Your task to perform on an android device: search for starred emails in the gmail app Image 0: 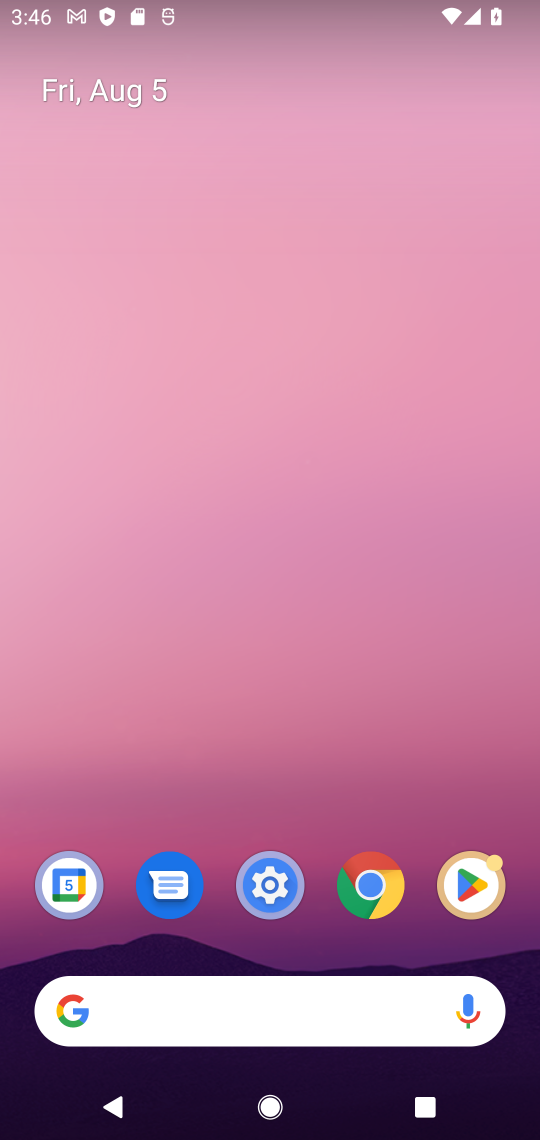
Step 0: drag from (300, 957) to (243, 97)
Your task to perform on an android device: search for starred emails in the gmail app Image 1: 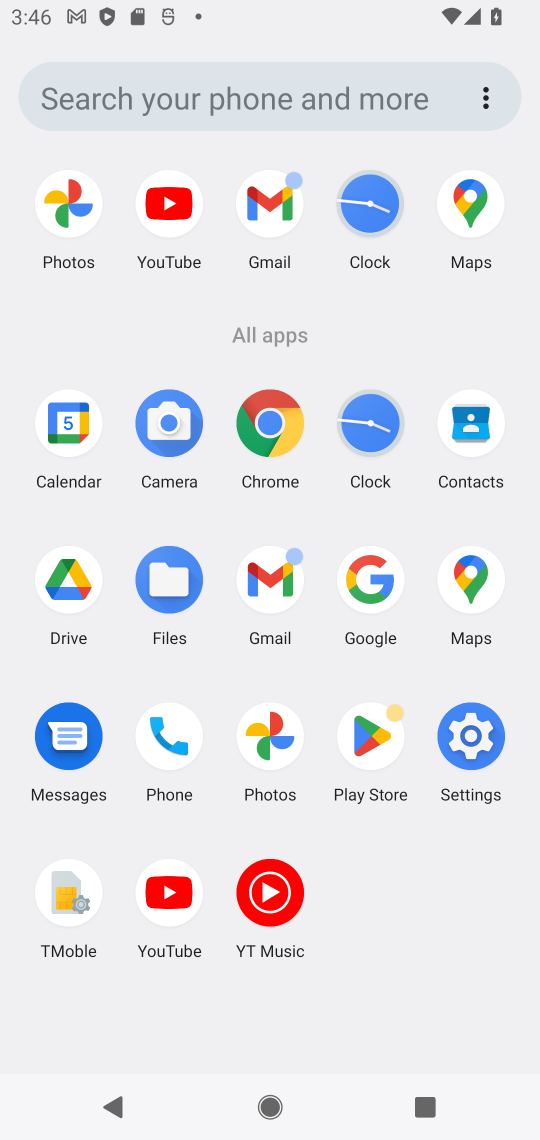
Step 1: click (269, 587)
Your task to perform on an android device: search for starred emails in the gmail app Image 2: 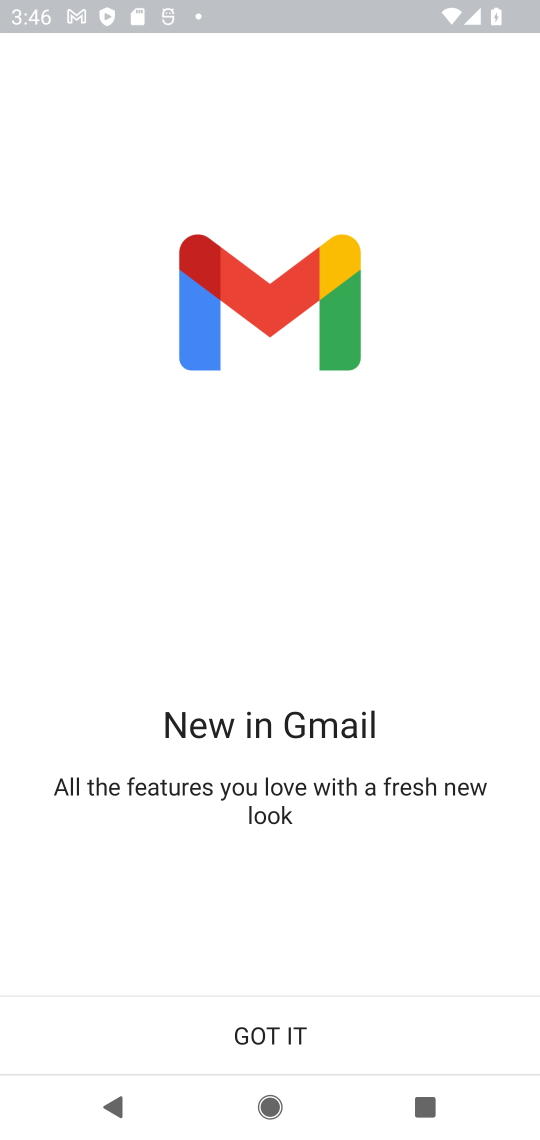
Step 2: click (251, 1031)
Your task to perform on an android device: search for starred emails in the gmail app Image 3: 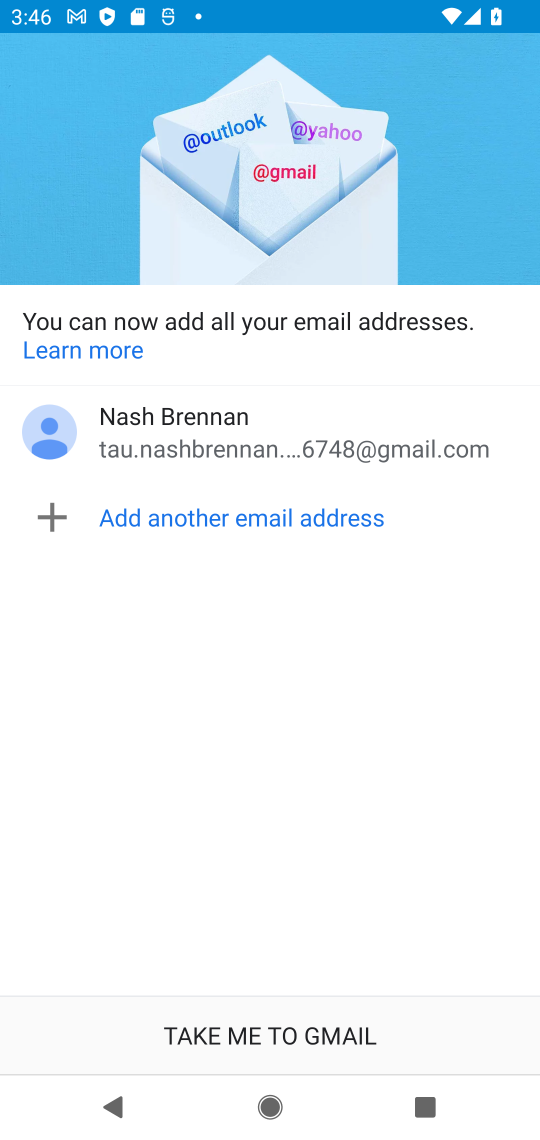
Step 3: click (251, 1031)
Your task to perform on an android device: search for starred emails in the gmail app Image 4: 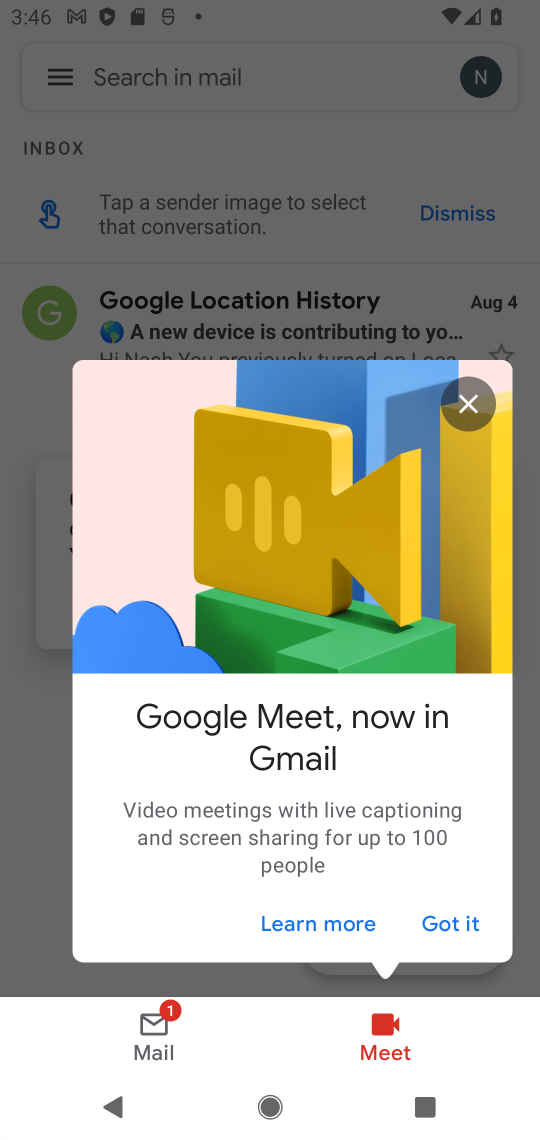
Step 4: click (463, 916)
Your task to perform on an android device: search for starred emails in the gmail app Image 5: 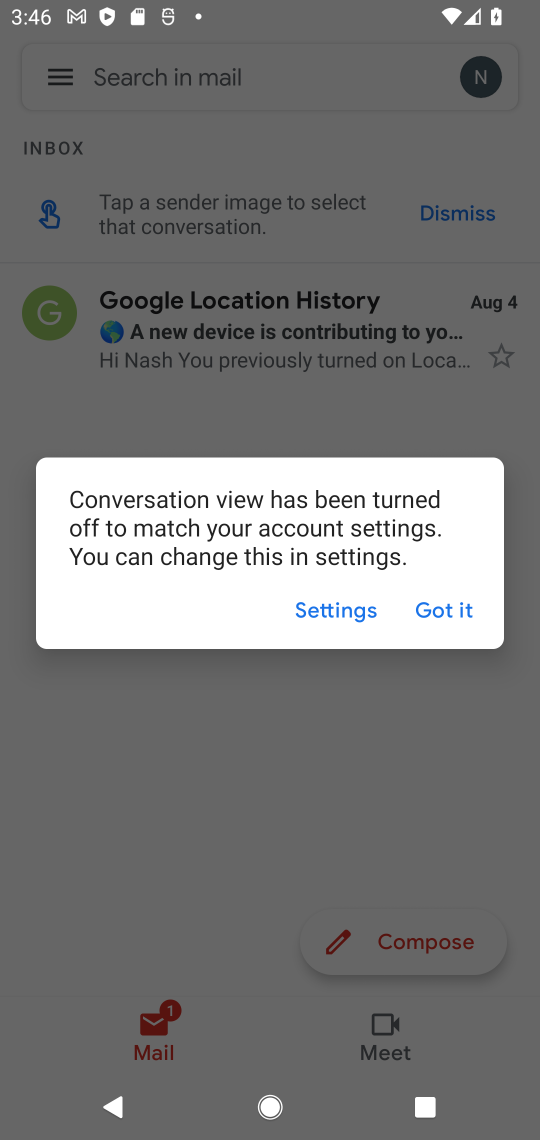
Step 5: click (447, 615)
Your task to perform on an android device: search for starred emails in the gmail app Image 6: 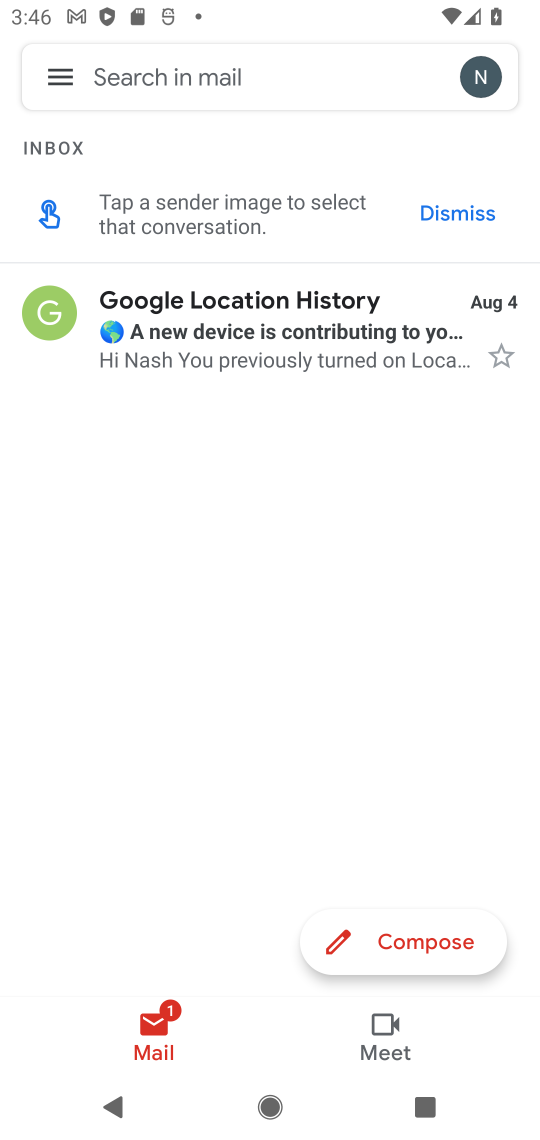
Step 6: click (60, 75)
Your task to perform on an android device: search for starred emails in the gmail app Image 7: 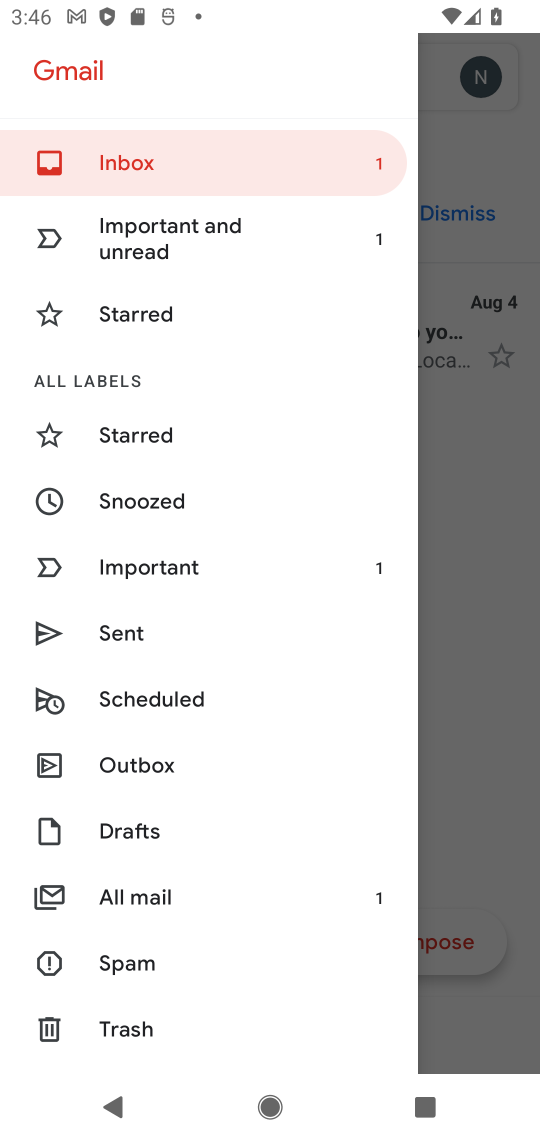
Step 7: click (156, 441)
Your task to perform on an android device: search for starred emails in the gmail app Image 8: 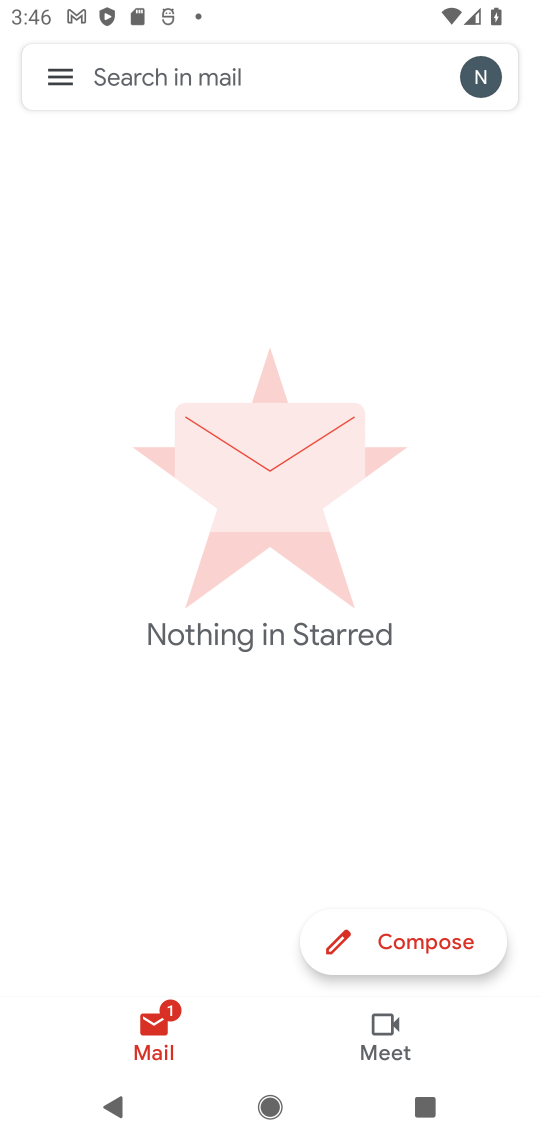
Step 8: task complete